Your task to perform on an android device: Go to network settings Image 0: 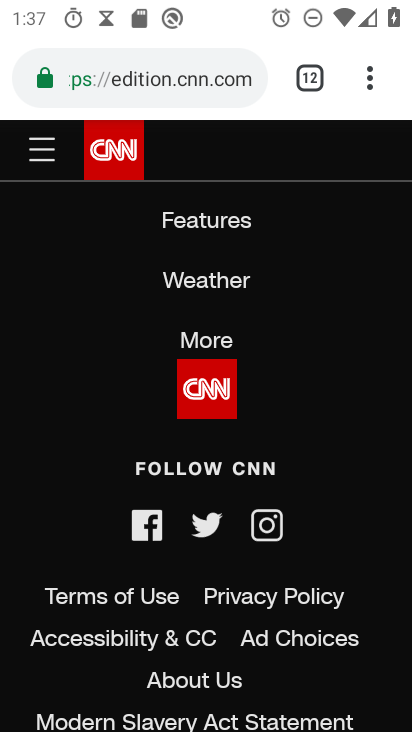
Step 0: press home button
Your task to perform on an android device: Go to network settings Image 1: 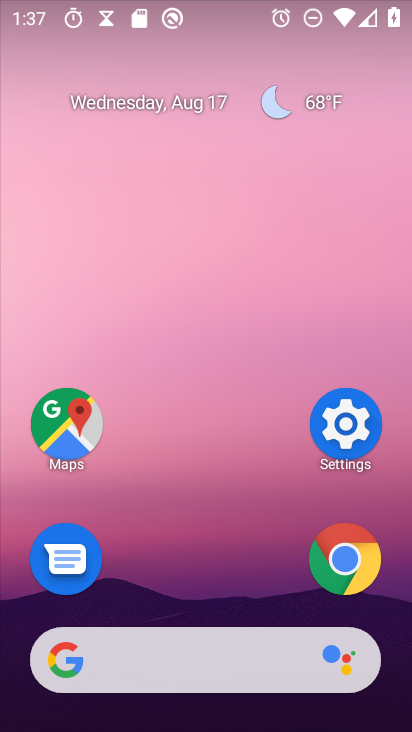
Step 1: click (361, 412)
Your task to perform on an android device: Go to network settings Image 2: 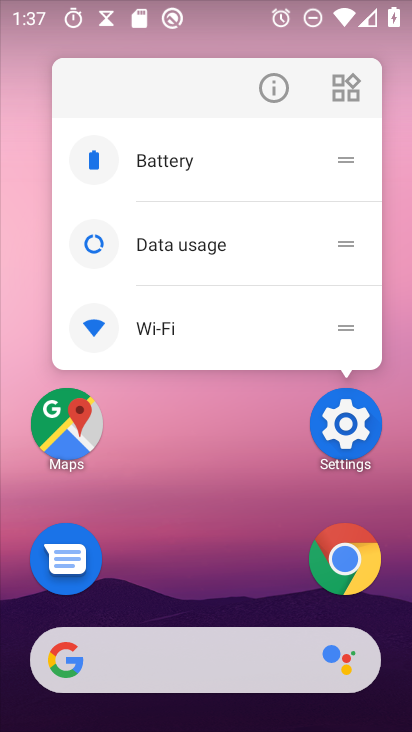
Step 2: click (350, 428)
Your task to perform on an android device: Go to network settings Image 3: 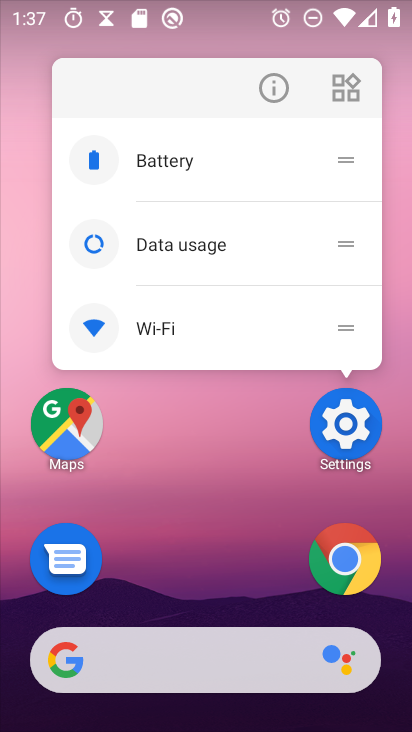
Step 3: click (347, 429)
Your task to perform on an android device: Go to network settings Image 4: 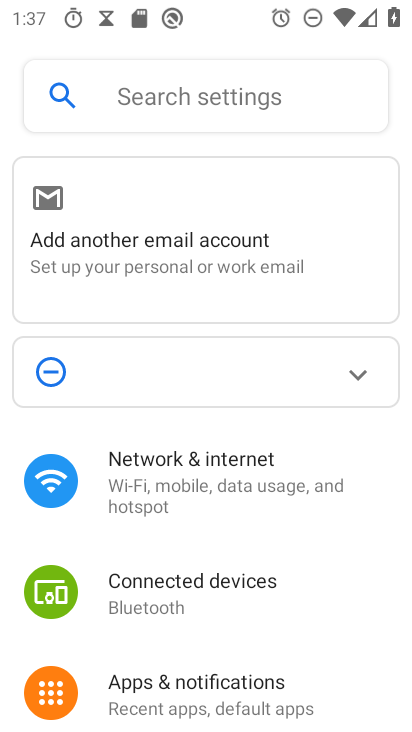
Step 4: click (164, 463)
Your task to perform on an android device: Go to network settings Image 5: 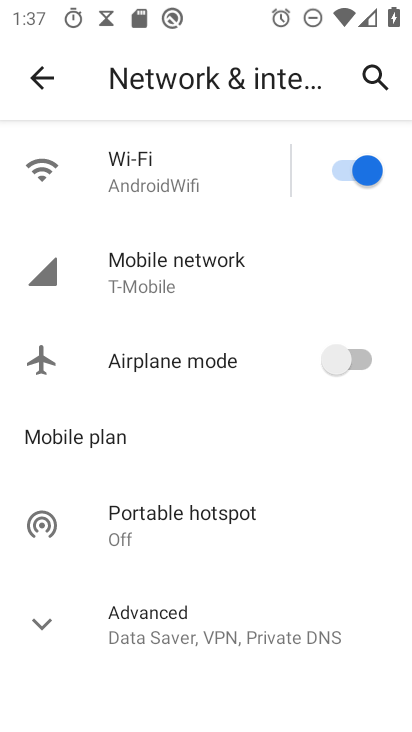
Step 5: task complete